Your task to perform on an android device: Do I have any events tomorrow? Image 0: 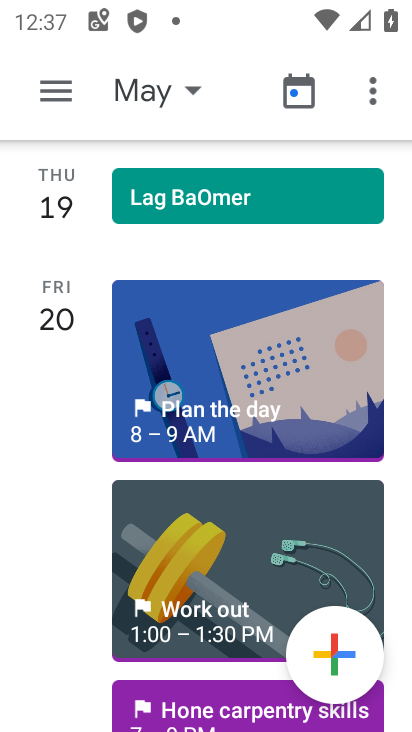
Step 0: click (64, 218)
Your task to perform on an android device: Do I have any events tomorrow? Image 1: 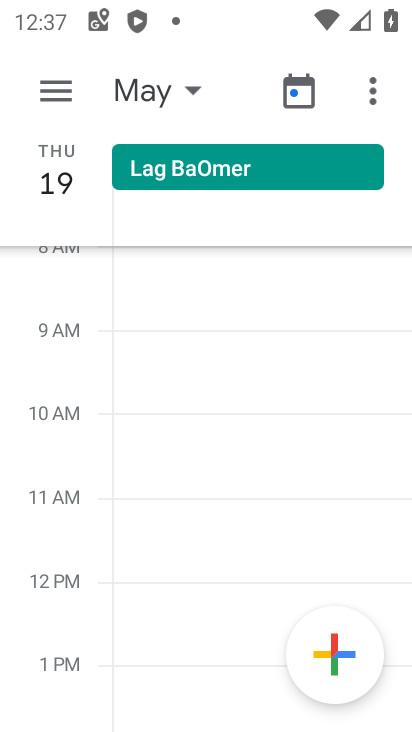
Step 1: task complete